Your task to perform on an android device: Go to battery settings Image 0: 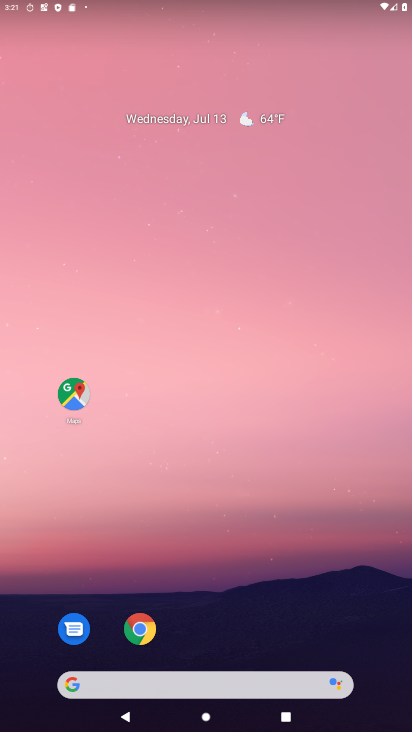
Step 0: drag from (351, 463) to (246, 2)
Your task to perform on an android device: Go to battery settings Image 1: 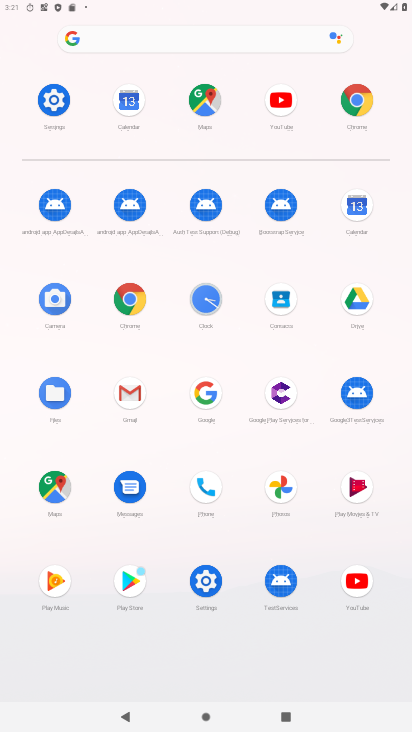
Step 1: click (60, 94)
Your task to perform on an android device: Go to battery settings Image 2: 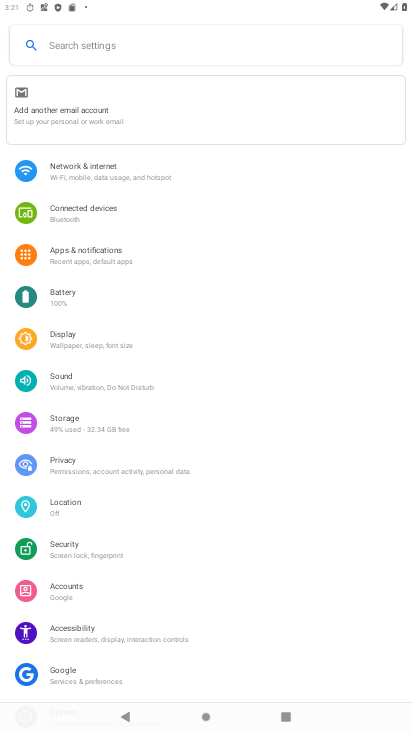
Step 2: click (83, 305)
Your task to perform on an android device: Go to battery settings Image 3: 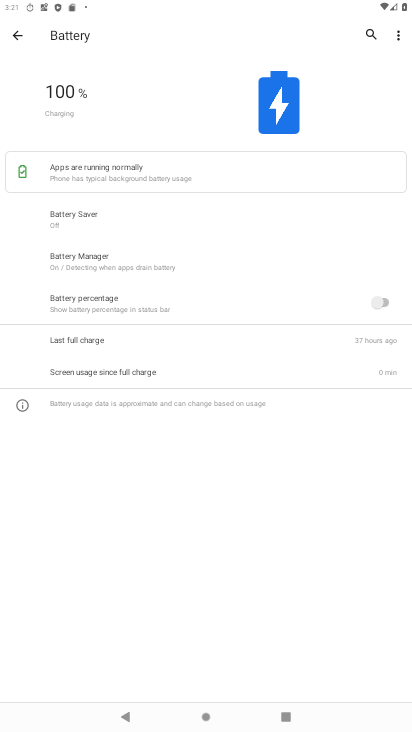
Step 3: task complete